Your task to perform on an android device: Open Yahoo.com Image 0: 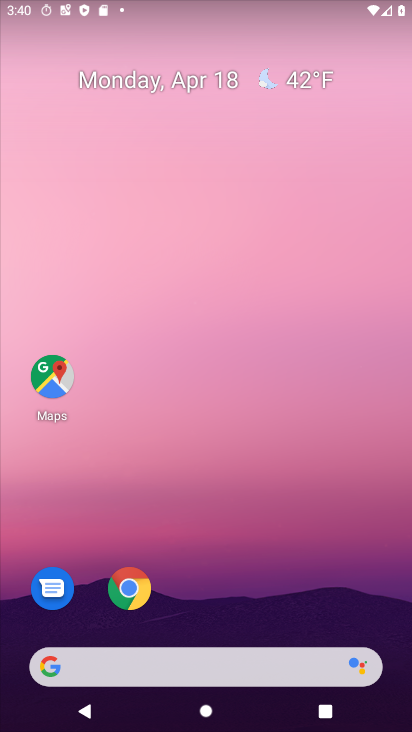
Step 0: click (132, 585)
Your task to perform on an android device: Open Yahoo.com Image 1: 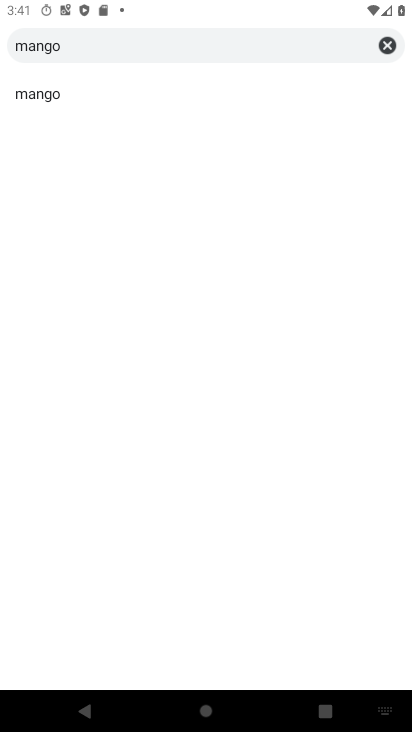
Step 1: click (382, 46)
Your task to perform on an android device: Open Yahoo.com Image 2: 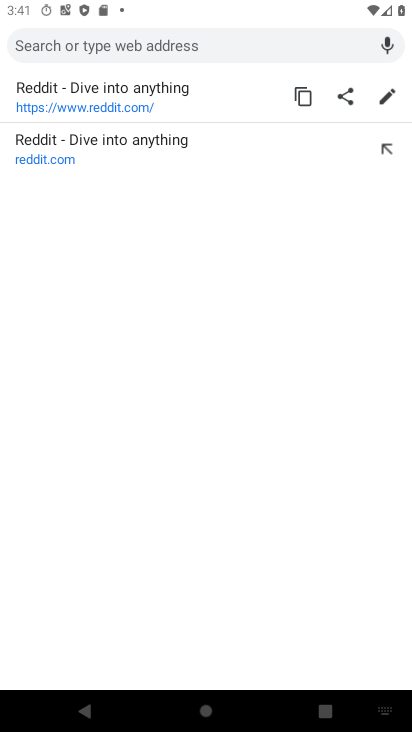
Step 2: press back button
Your task to perform on an android device: Open Yahoo.com Image 3: 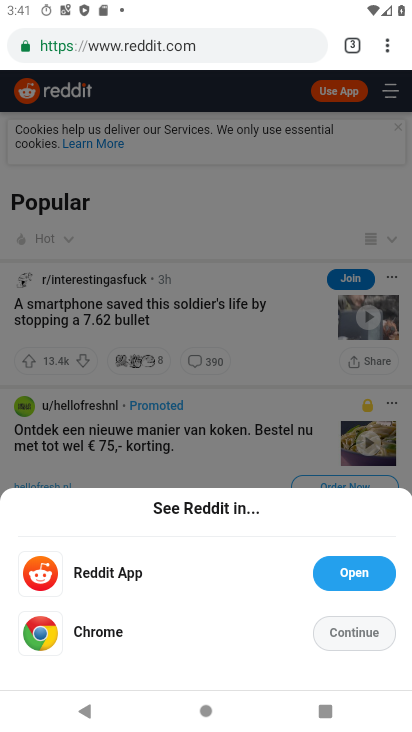
Step 3: click (385, 50)
Your task to perform on an android device: Open Yahoo.com Image 4: 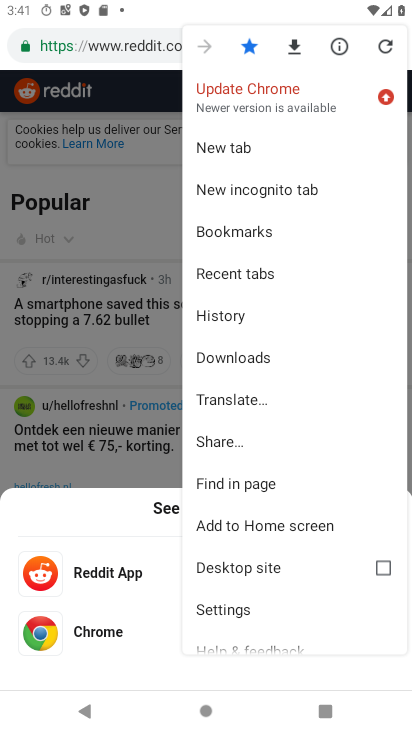
Step 4: click (202, 141)
Your task to perform on an android device: Open Yahoo.com Image 5: 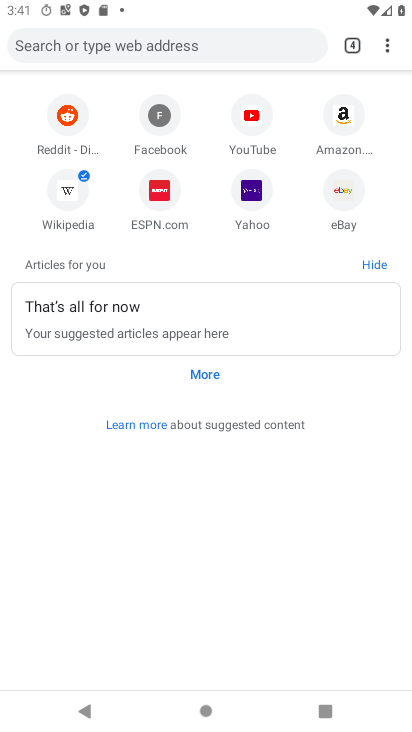
Step 5: click (257, 197)
Your task to perform on an android device: Open Yahoo.com Image 6: 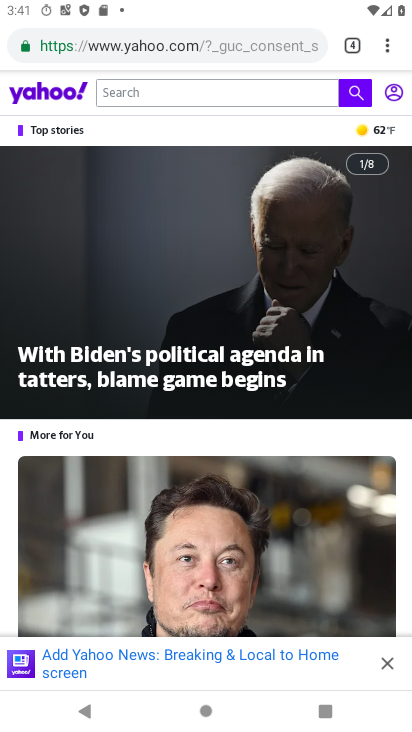
Step 6: task complete